Your task to perform on an android device: Open Yahoo.com Image 0: 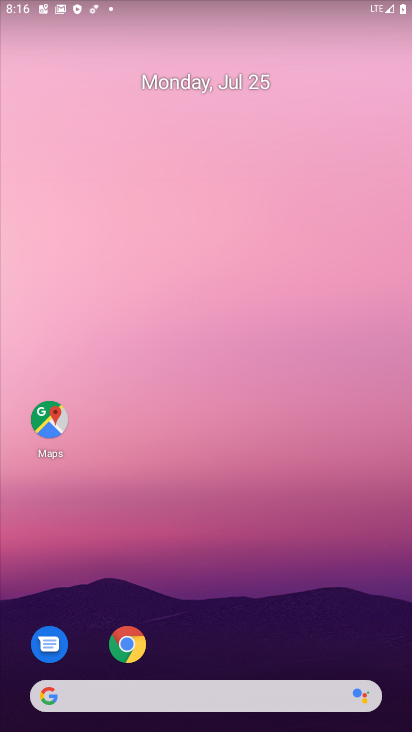
Step 0: drag from (198, 600) to (248, 110)
Your task to perform on an android device: Open Yahoo.com Image 1: 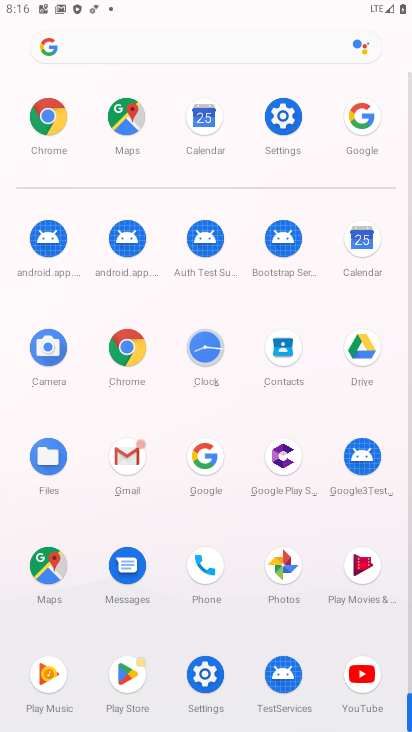
Step 1: click (130, 358)
Your task to perform on an android device: Open Yahoo.com Image 2: 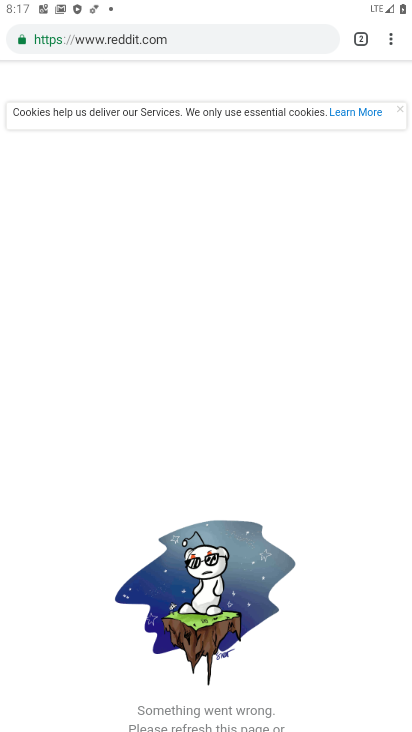
Step 2: click (364, 37)
Your task to perform on an android device: Open Yahoo.com Image 3: 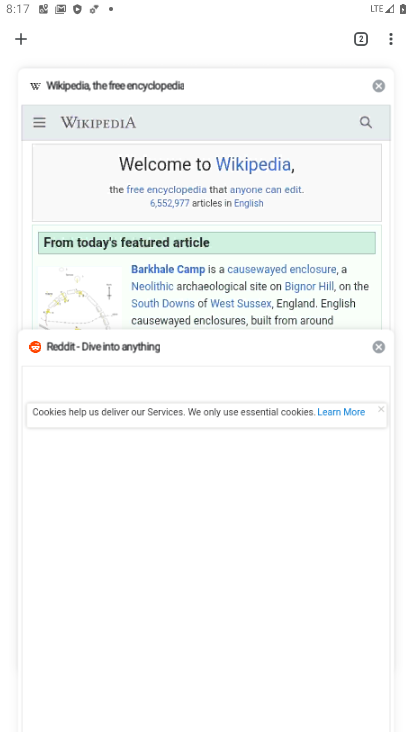
Step 3: click (20, 38)
Your task to perform on an android device: Open Yahoo.com Image 4: 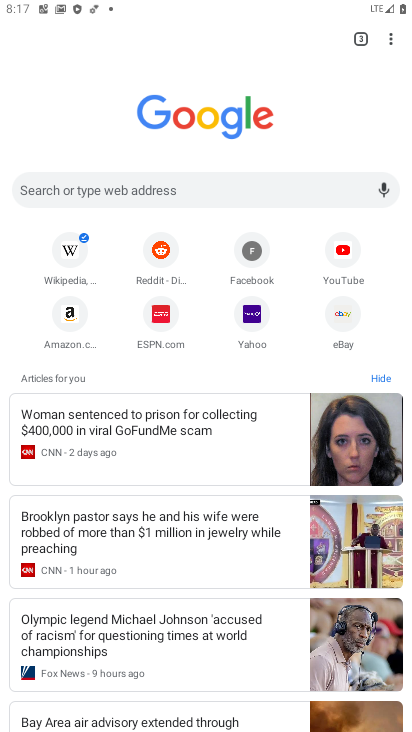
Step 4: click (244, 330)
Your task to perform on an android device: Open Yahoo.com Image 5: 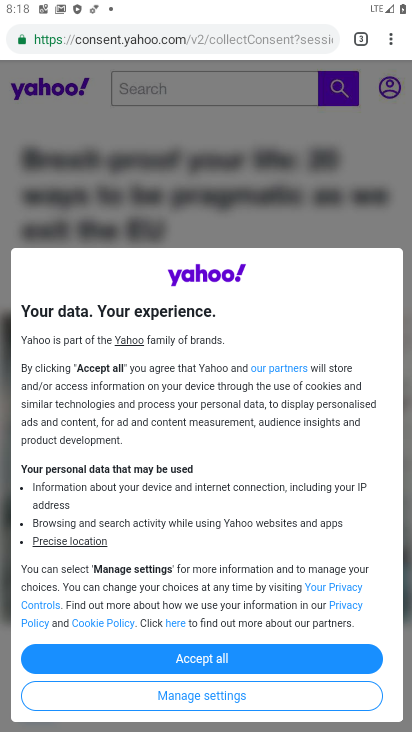
Step 5: click (226, 669)
Your task to perform on an android device: Open Yahoo.com Image 6: 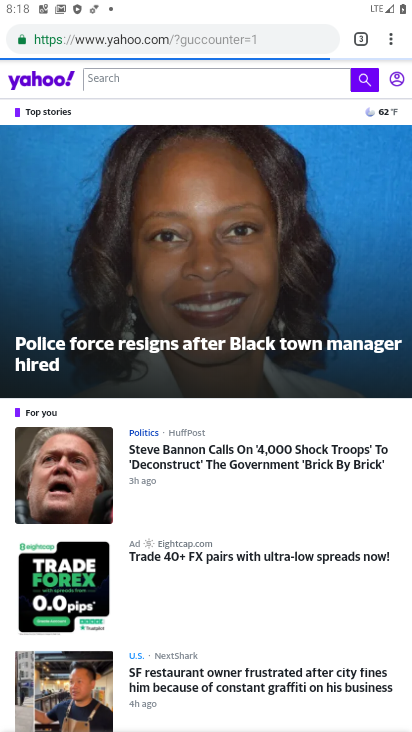
Step 6: task complete